Your task to perform on an android device: Is it going to rain today? Image 0: 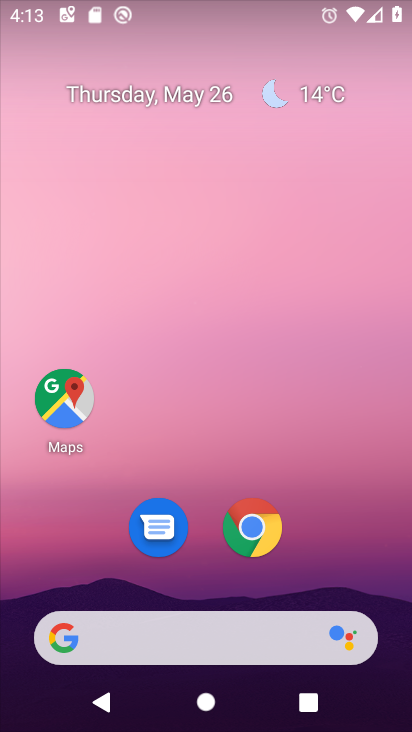
Step 0: click (270, 540)
Your task to perform on an android device: Is it going to rain today? Image 1: 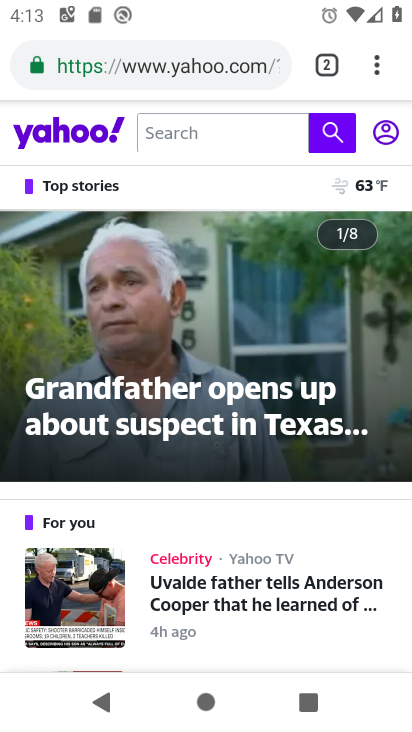
Step 1: click (179, 63)
Your task to perform on an android device: Is it going to rain today? Image 2: 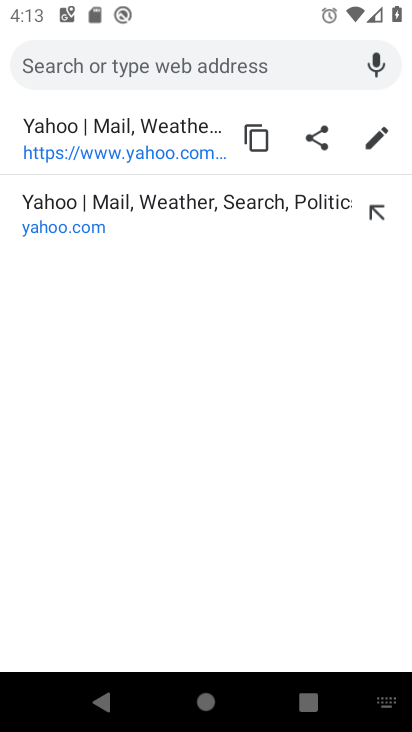
Step 2: type "Is it going to rain today?"
Your task to perform on an android device: Is it going to rain today? Image 3: 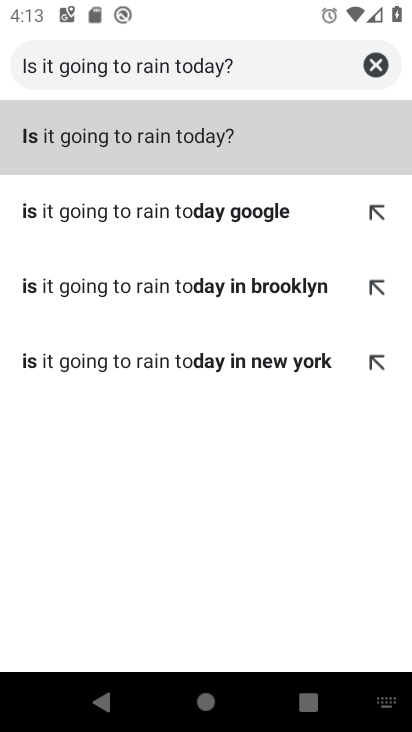
Step 3: click (186, 132)
Your task to perform on an android device: Is it going to rain today? Image 4: 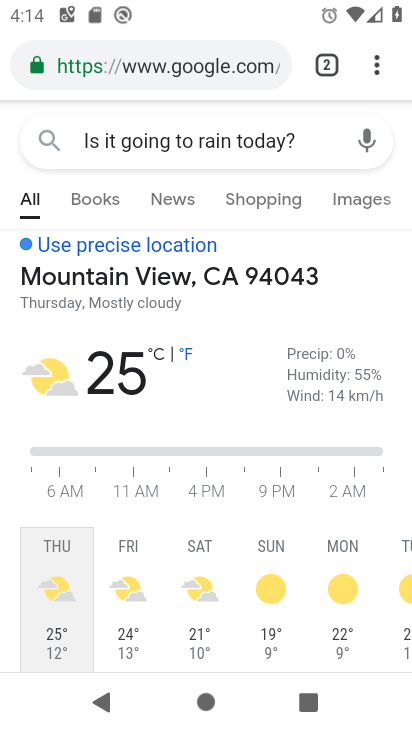
Step 4: task complete